Your task to perform on an android device: turn off data saver in the chrome app Image 0: 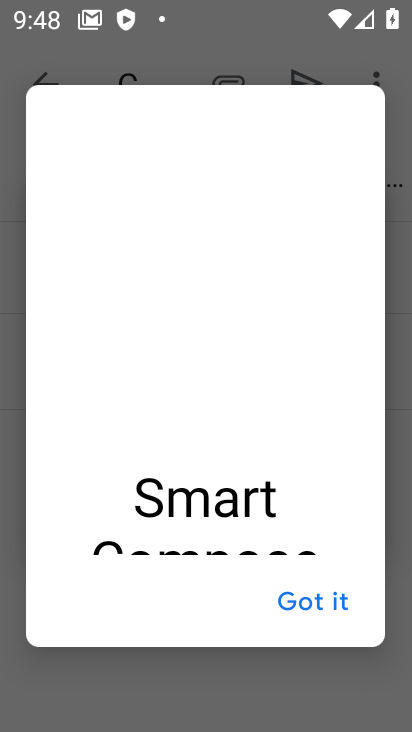
Step 0: press home button
Your task to perform on an android device: turn off data saver in the chrome app Image 1: 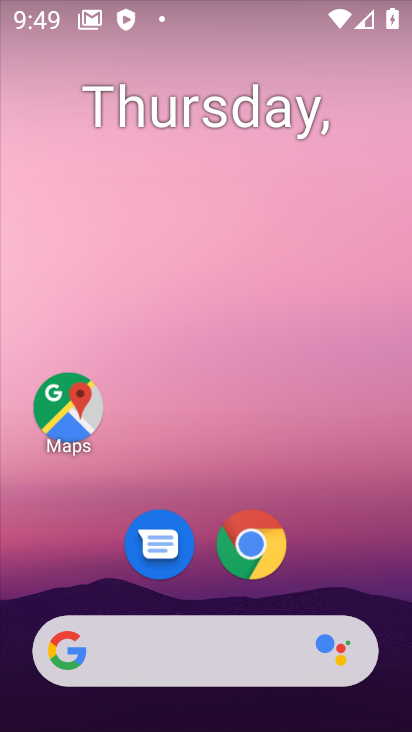
Step 1: click (250, 538)
Your task to perform on an android device: turn off data saver in the chrome app Image 2: 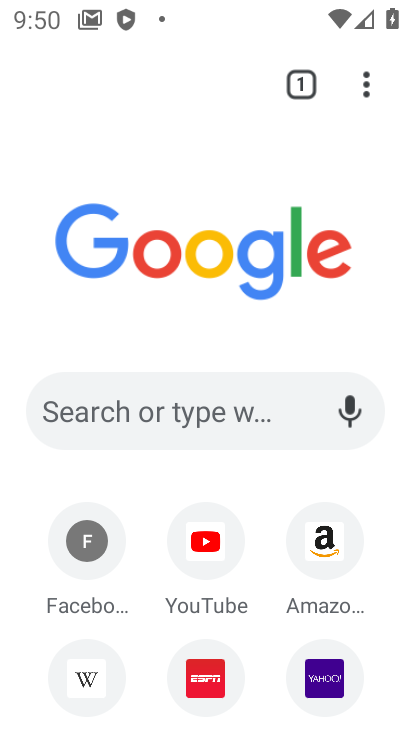
Step 2: click (367, 76)
Your task to perform on an android device: turn off data saver in the chrome app Image 3: 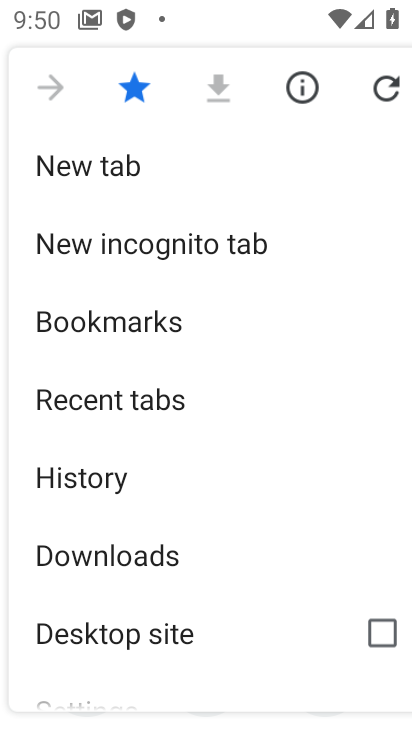
Step 3: drag from (203, 599) to (203, 95)
Your task to perform on an android device: turn off data saver in the chrome app Image 4: 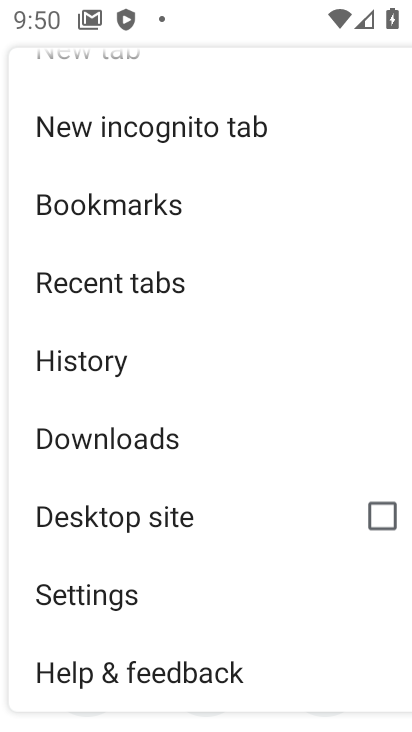
Step 4: click (146, 596)
Your task to perform on an android device: turn off data saver in the chrome app Image 5: 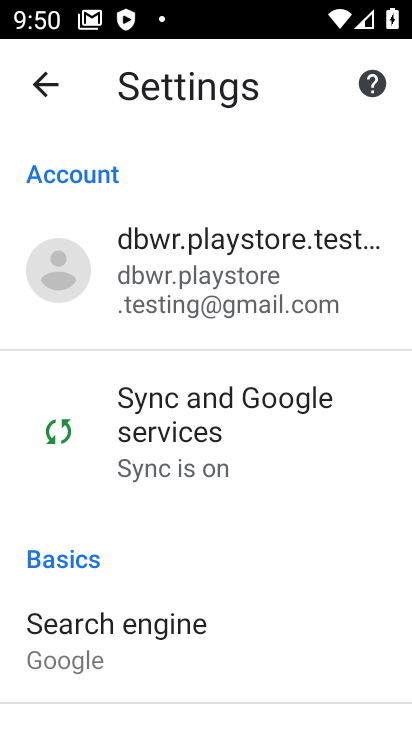
Step 5: drag from (182, 659) to (175, 151)
Your task to perform on an android device: turn off data saver in the chrome app Image 6: 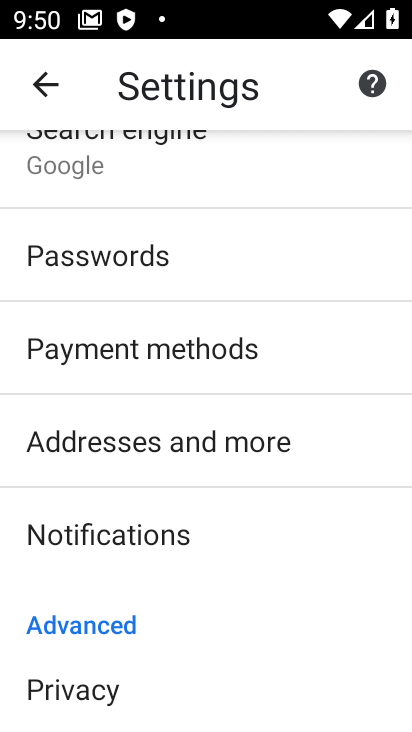
Step 6: drag from (228, 567) to (249, 149)
Your task to perform on an android device: turn off data saver in the chrome app Image 7: 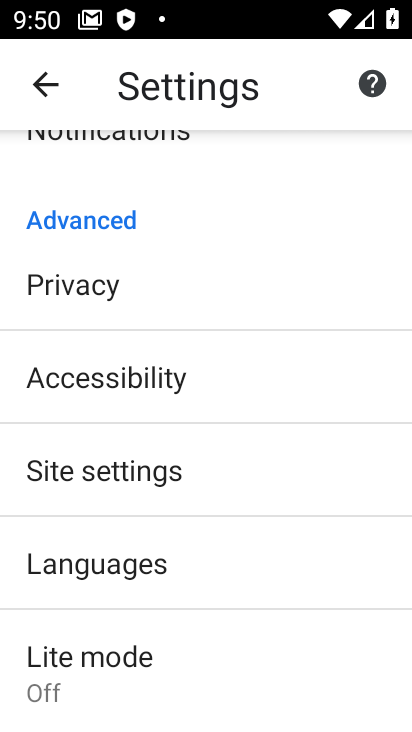
Step 7: click (179, 687)
Your task to perform on an android device: turn off data saver in the chrome app Image 8: 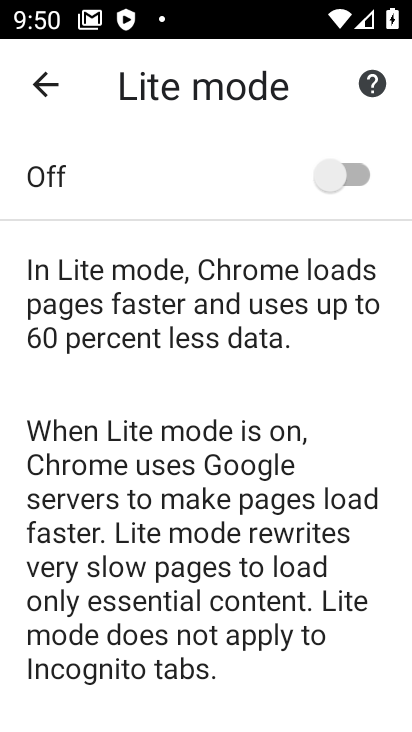
Step 8: task complete